Your task to perform on an android device: Is it going to rain today? Image 0: 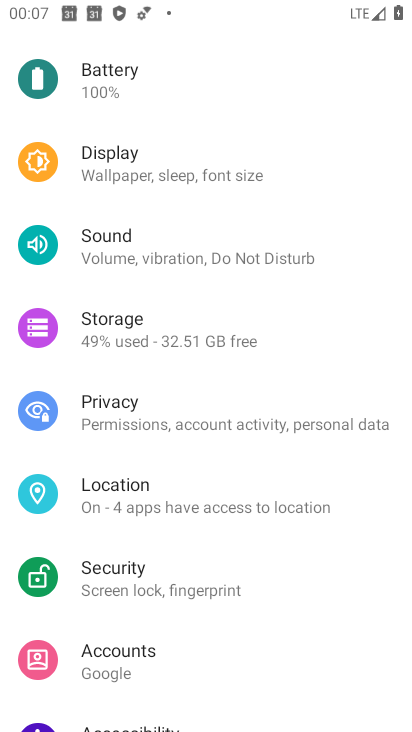
Step 0: press home button
Your task to perform on an android device: Is it going to rain today? Image 1: 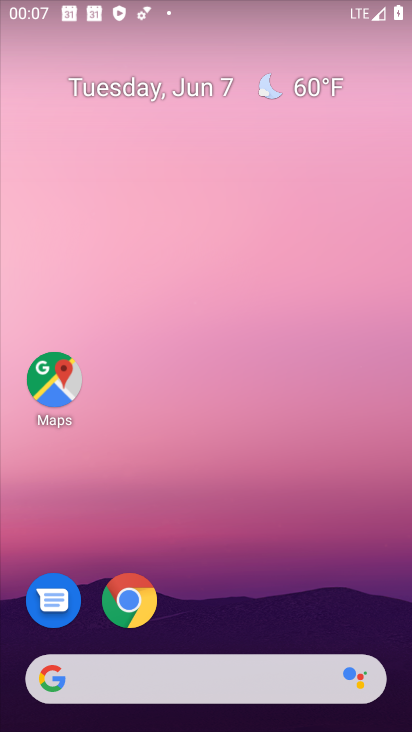
Step 1: drag from (221, 728) to (233, 344)
Your task to perform on an android device: Is it going to rain today? Image 2: 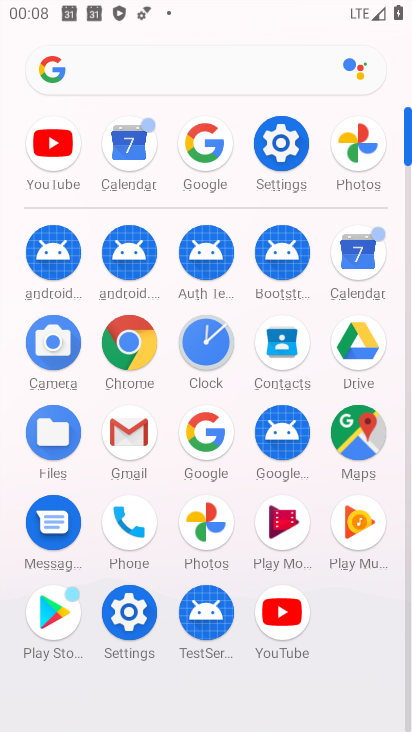
Step 2: click (206, 435)
Your task to perform on an android device: Is it going to rain today? Image 3: 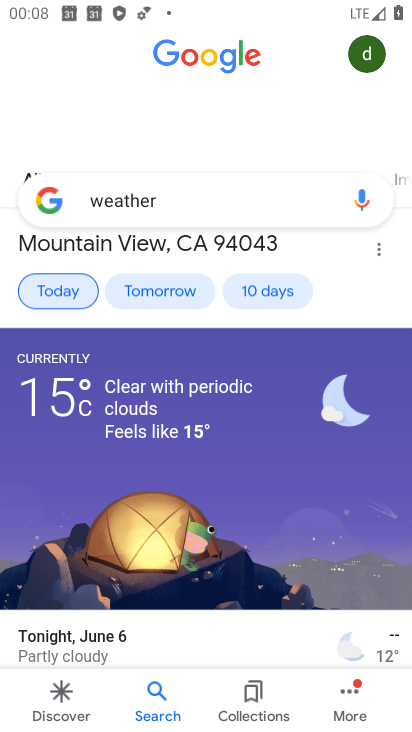
Step 3: click (43, 295)
Your task to perform on an android device: Is it going to rain today? Image 4: 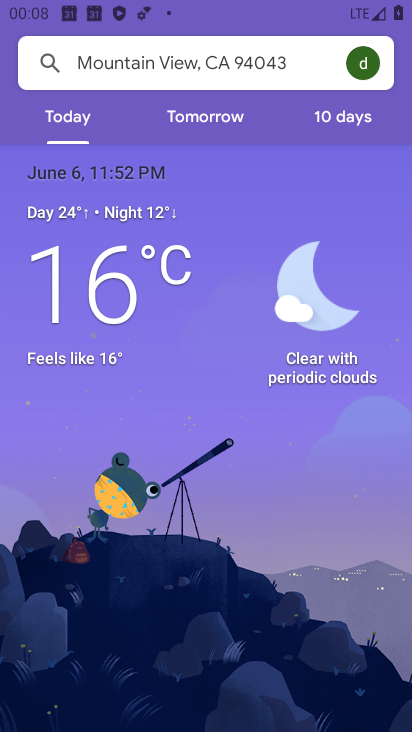
Step 4: task complete